Your task to perform on an android device: show emergency info Image 0: 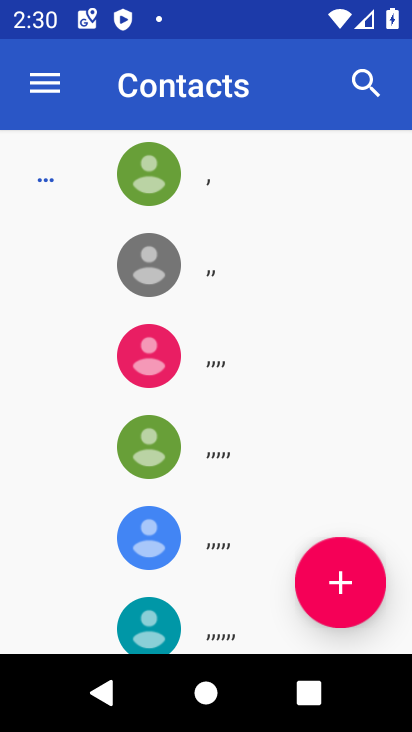
Step 0: press home button
Your task to perform on an android device: show emergency info Image 1: 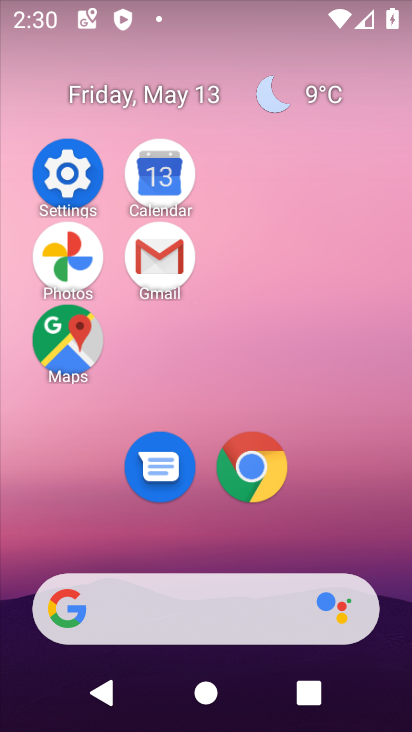
Step 1: click (88, 168)
Your task to perform on an android device: show emergency info Image 2: 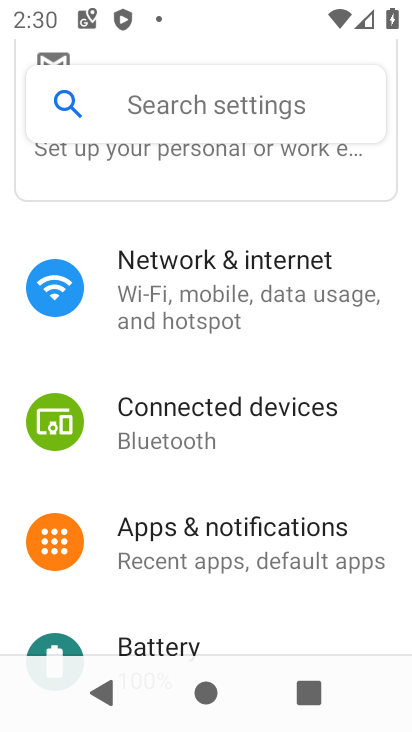
Step 2: drag from (224, 621) to (269, 248)
Your task to perform on an android device: show emergency info Image 3: 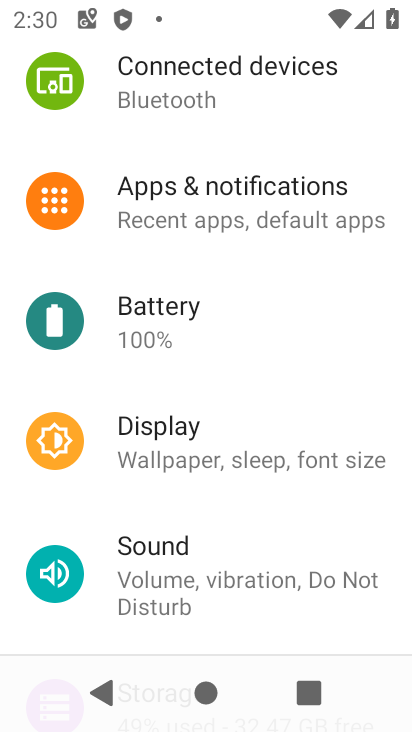
Step 3: drag from (255, 513) to (276, 173)
Your task to perform on an android device: show emergency info Image 4: 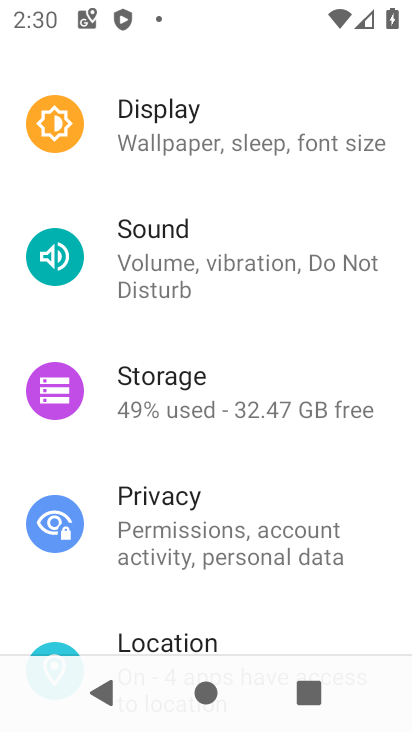
Step 4: drag from (235, 508) to (260, 188)
Your task to perform on an android device: show emergency info Image 5: 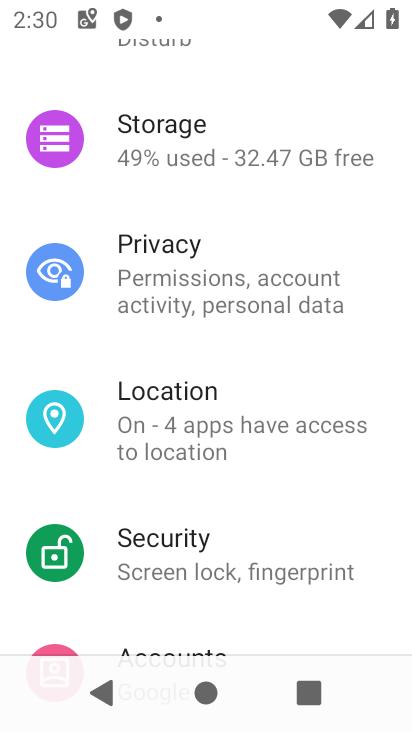
Step 5: drag from (269, 525) to (288, 213)
Your task to perform on an android device: show emergency info Image 6: 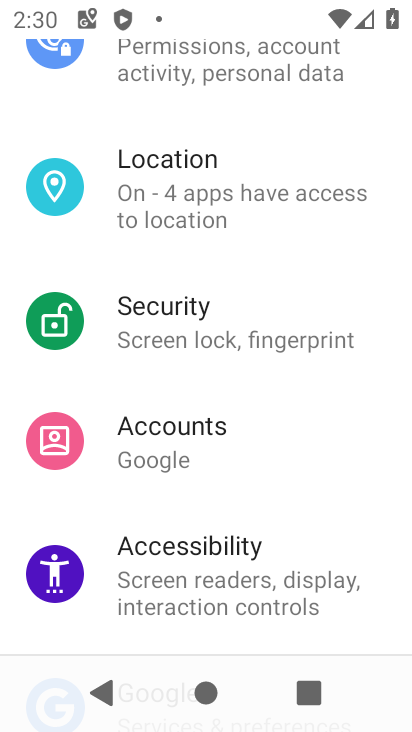
Step 6: drag from (284, 471) to (298, 130)
Your task to perform on an android device: show emergency info Image 7: 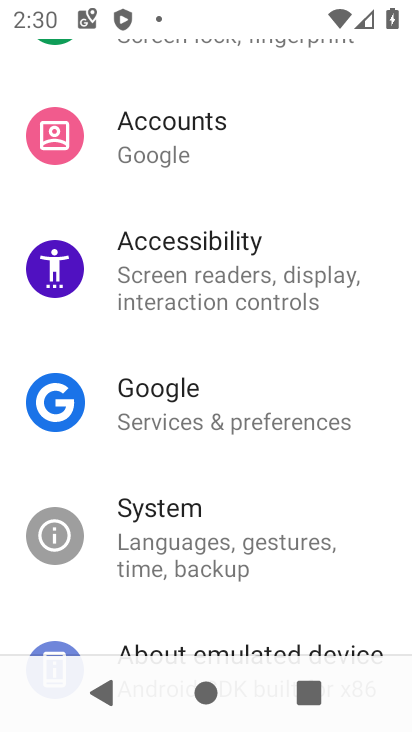
Step 7: drag from (237, 485) to (282, 235)
Your task to perform on an android device: show emergency info Image 8: 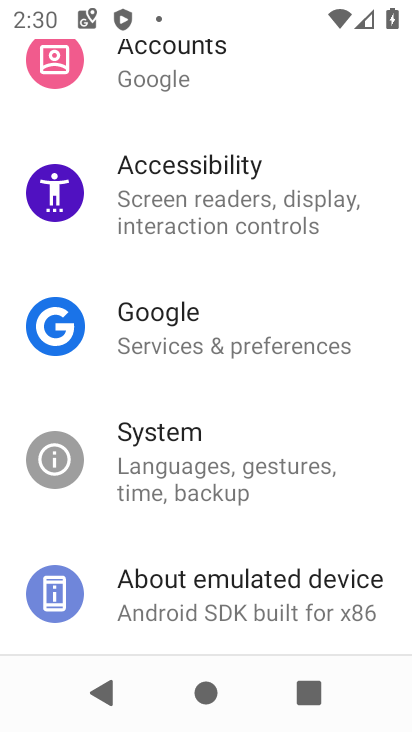
Step 8: drag from (302, 256) to (305, 180)
Your task to perform on an android device: show emergency info Image 9: 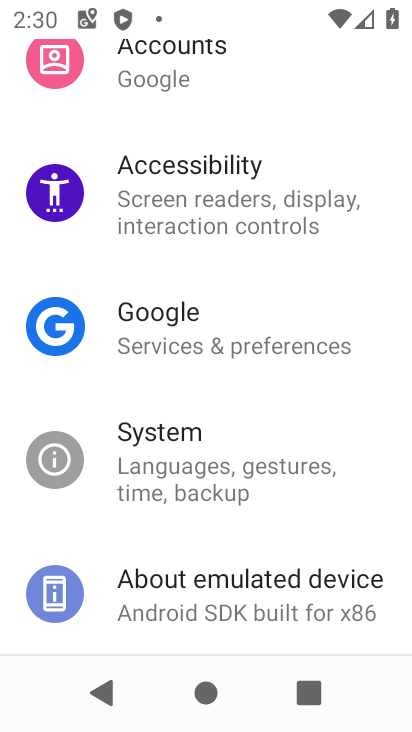
Step 9: click (211, 581)
Your task to perform on an android device: show emergency info Image 10: 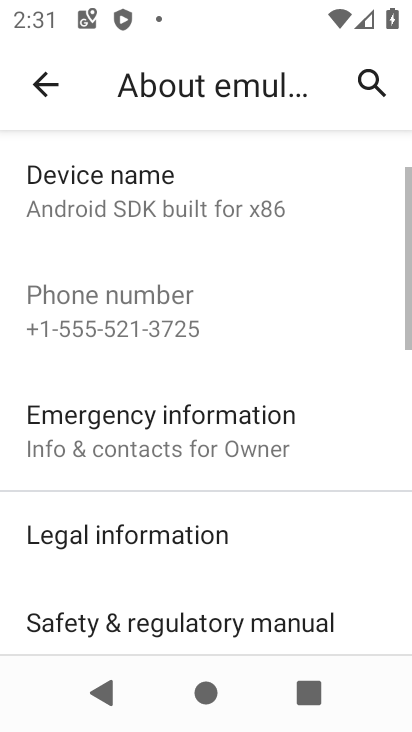
Step 10: drag from (200, 568) to (254, 206)
Your task to perform on an android device: show emergency info Image 11: 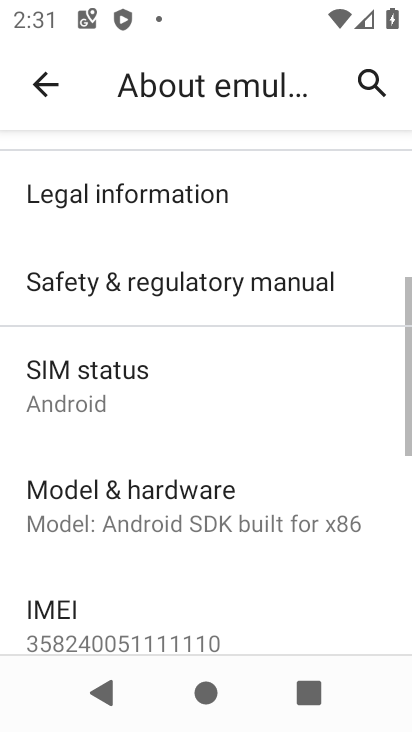
Step 11: drag from (278, 317) to (258, 500)
Your task to perform on an android device: show emergency info Image 12: 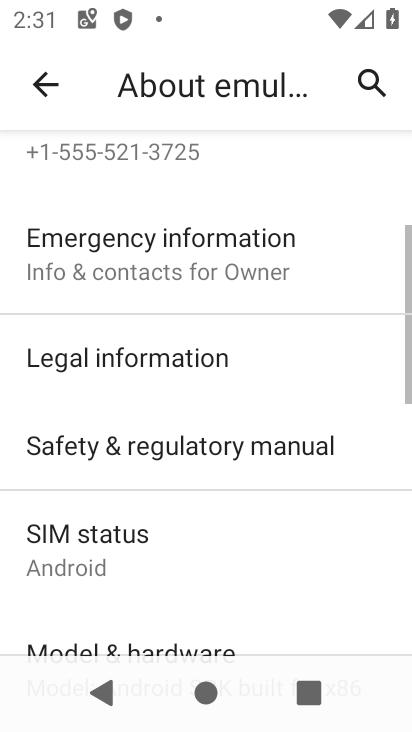
Step 12: drag from (358, 214) to (333, 495)
Your task to perform on an android device: show emergency info Image 13: 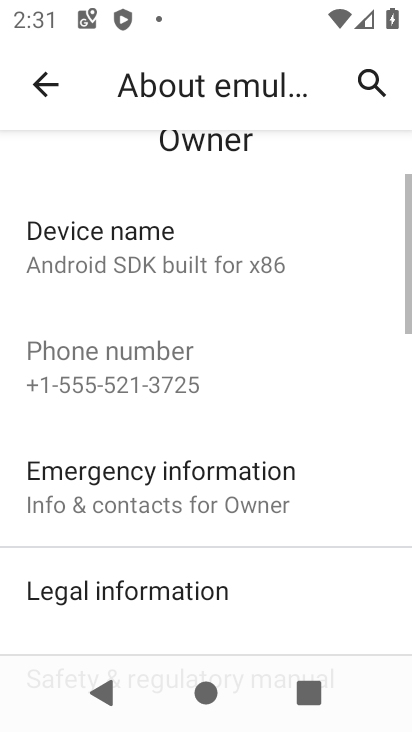
Step 13: drag from (294, 588) to (326, 437)
Your task to perform on an android device: show emergency info Image 14: 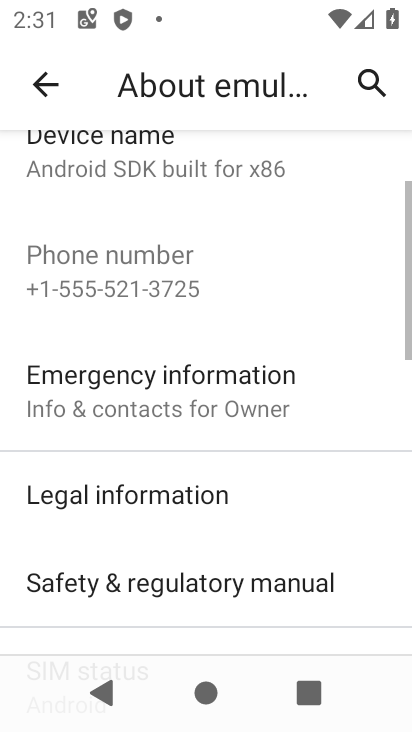
Step 14: click (224, 366)
Your task to perform on an android device: show emergency info Image 15: 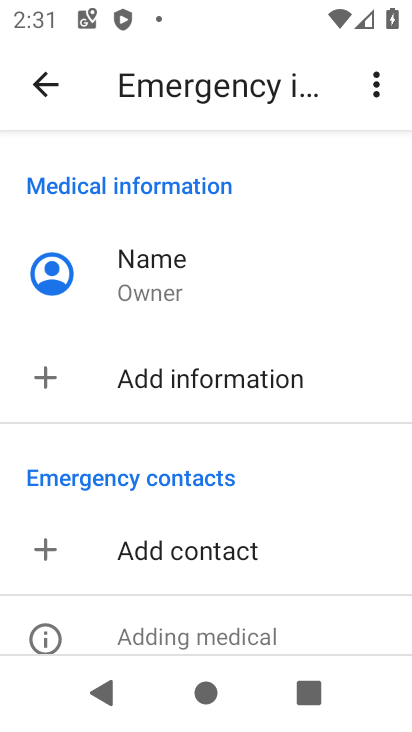
Step 15: task complete